Your task to perform on an android device: snooze an email in the gmail app Image 0: 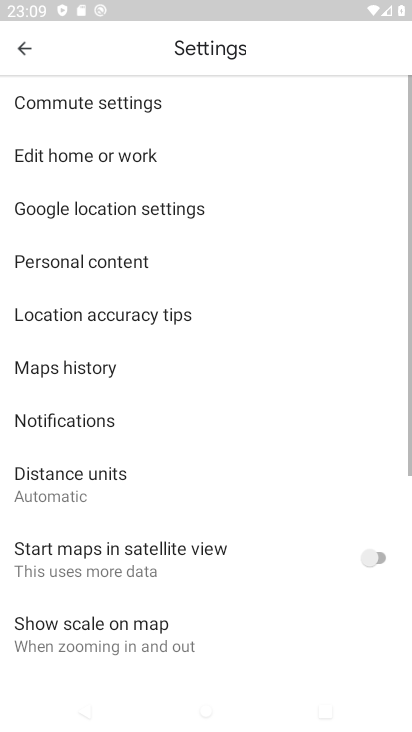
Step 0: press home button
Your task to perform on an android device: snooze an email in the gmail app Image 1: 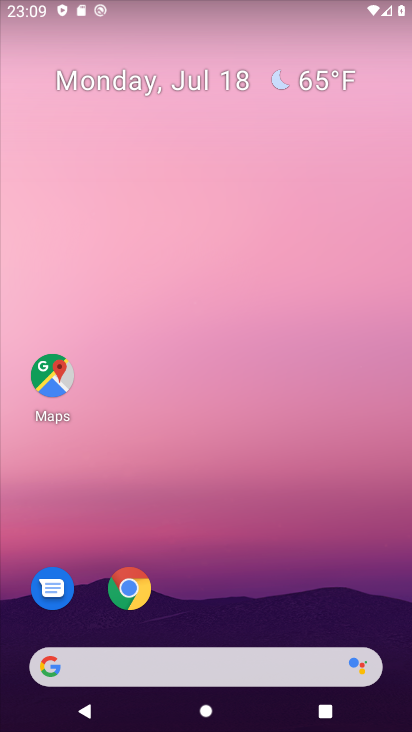
Step 1: drag from (276, 627) to (227, 149)
Your task to perform on an android device: snooze an email in the gmail app Image 2: 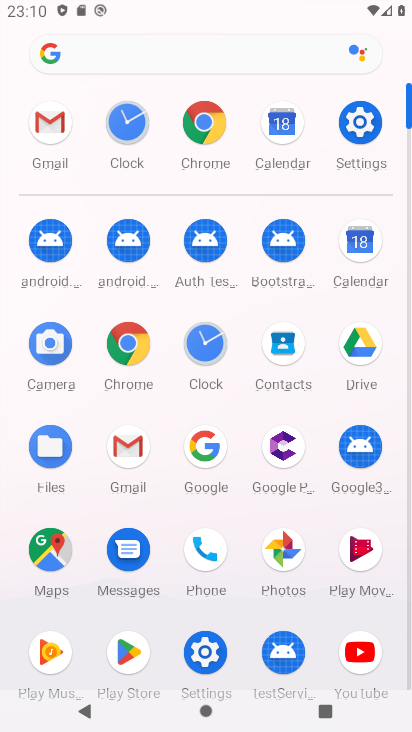
Step 2: click (46, 117)
Your task to perform on an android device: snooze an email in the gmail app Image 3: 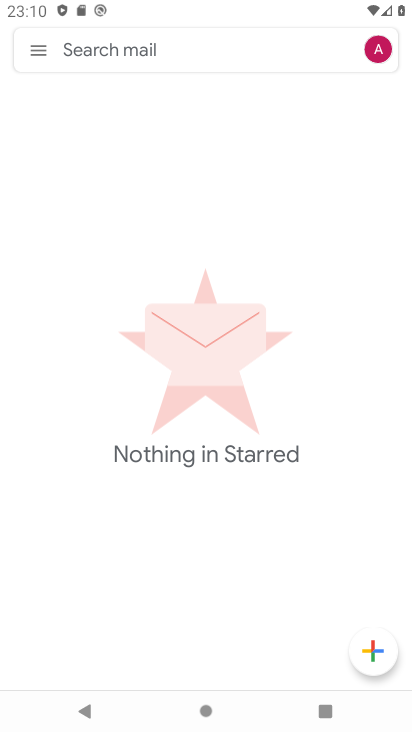
Step 3: click (42, 51)
Your task to perform on an android device: snooze an email in the gmail app Image 4: 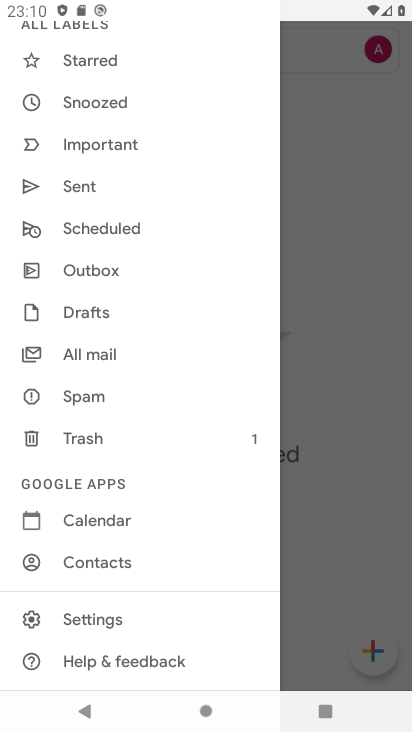
Step 4: click (110, 104)
Your task to perform on an android device: snooze an email in the gmail app Image 5: 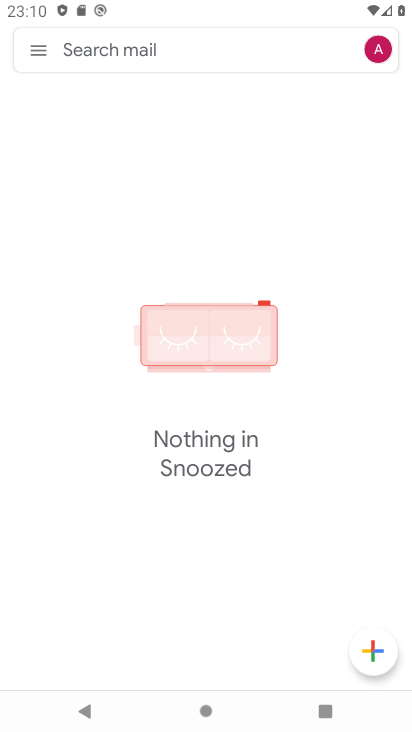
Step 5: task complete